Your task to perform on an android device: See recent photos Image 0: 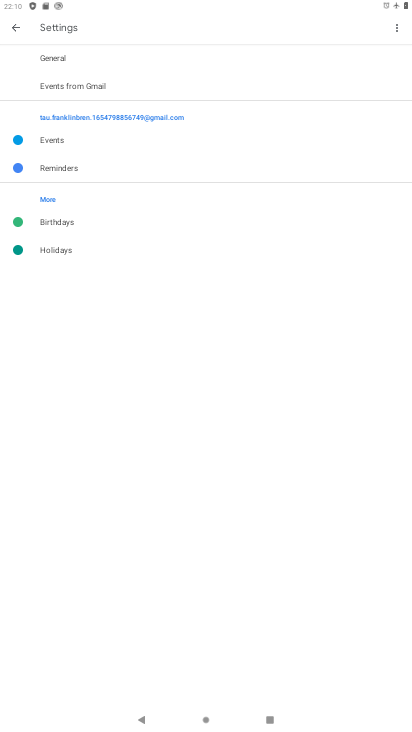
Step 0: press home button
Your task to perform on an android device: See recent photos Image 1: 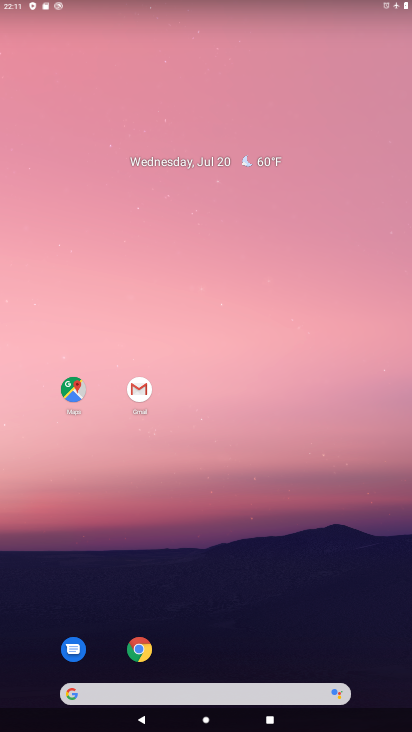
Step 1: drag from (375, 551) to (342, 207)
Your task to perform on an android device: See recent photos Image 2: 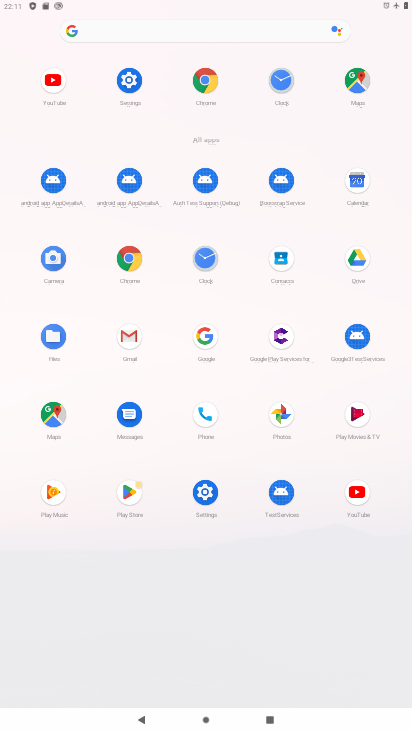
Step 2: click (278, 418)
Your task to perform on an android device: See recent photos Image 3: 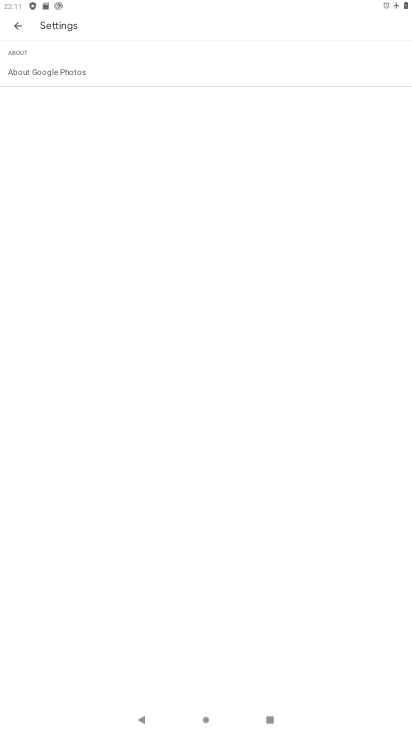
Step 3: click (13, 20)
Your task to perform on an android device: See recent photos Image 4: 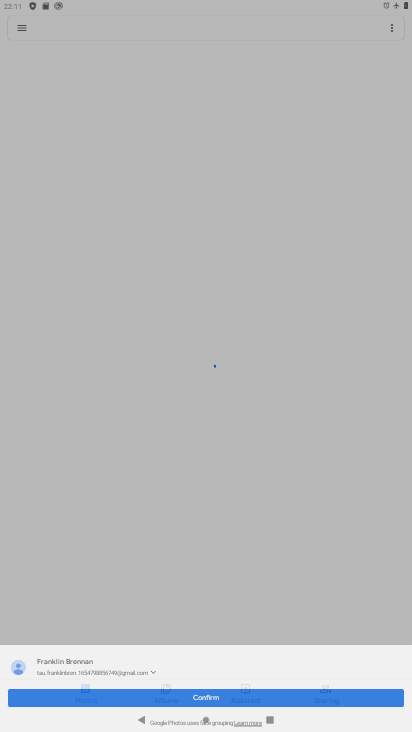
Step 4: click (90, 692)
Your task to perform on an android device: See recent photos Image 5: 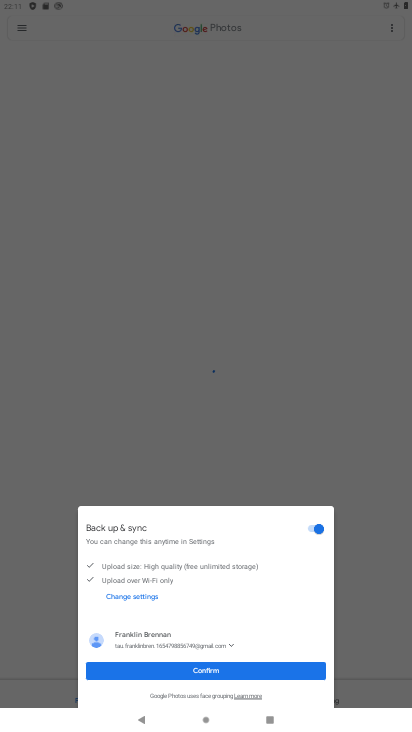
Step 5: click (220, 665)
Your task to perform on an android device: See recent photos Image 6: 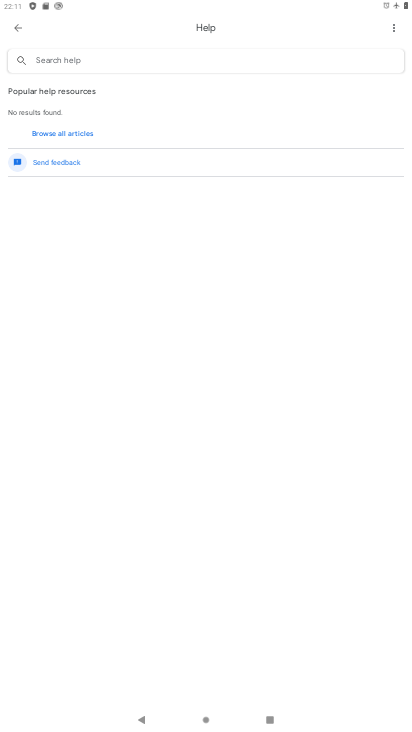
Step 6: click (9, 29)
Your task to perform on an android device: See recent photos Image 7: 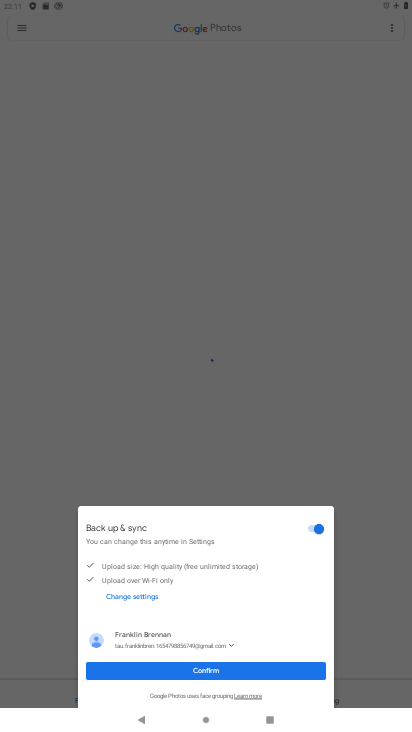
Step 7: click (237, 674)
Your task to perform on an android device: See recent photos Image 8: 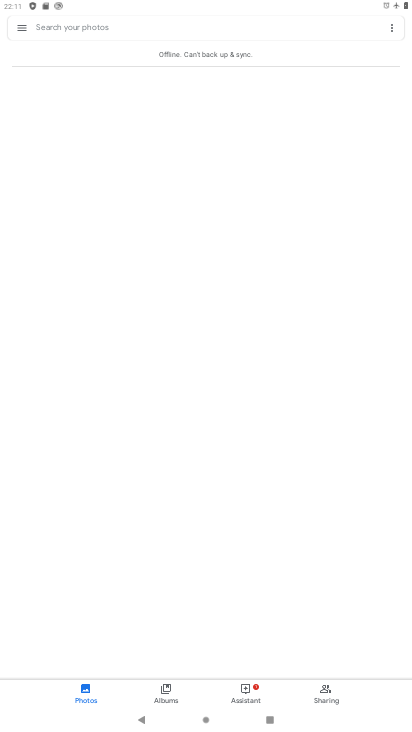
Step 8: task complete